Your task to perform on an android device: What is the recent news? Image 0: 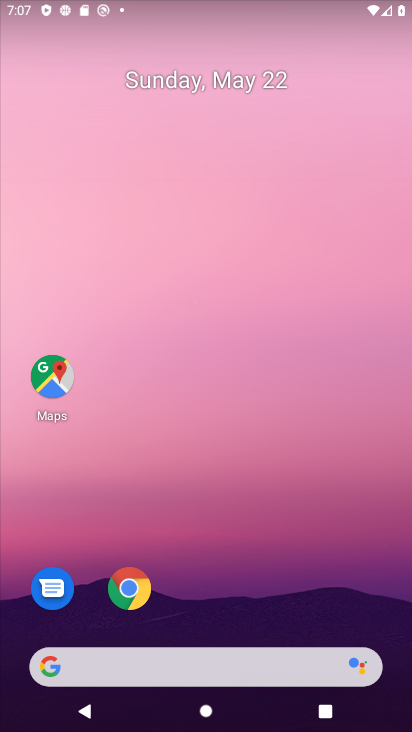
Step 0: drag from (5, 214) to (404, 237)
Your task to perform on an android device: What is the recent news? Image 1: 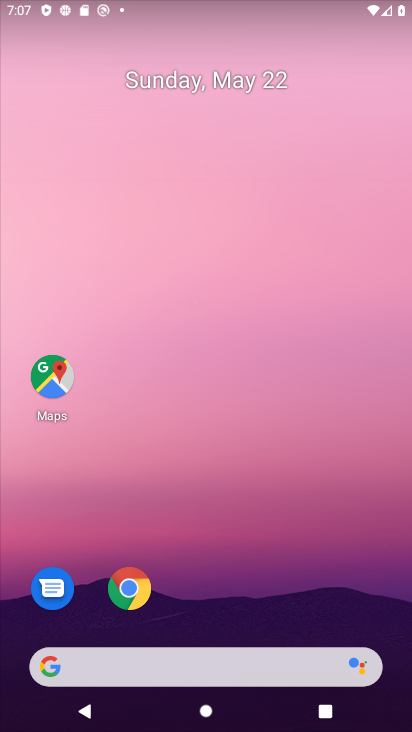
Step 1: task complete